Your task to perform on an android device: Open Google Chrome and open the bookmarks view Image 0: 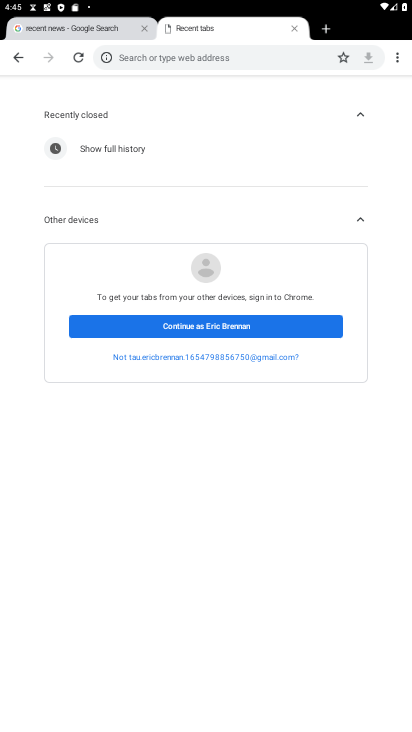
Step 0: press home button
Your task to perform on an android device: Open Google Chrome and open the bookmarks view Image 1: 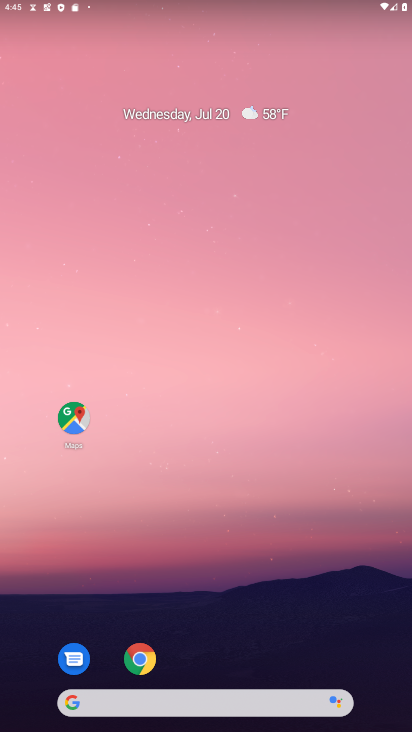
Step 1: drag from (178, 711) to (310, 30)
Your task to perform on an android device: Open Google Chrome and open the bookmarks view Image 2: 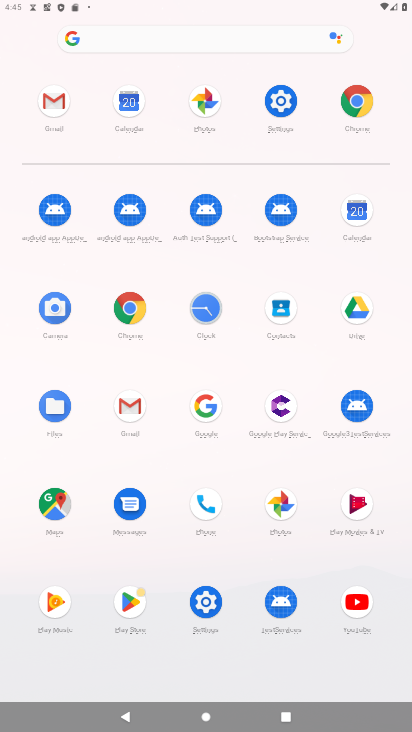
Step 2: click (115, 305)
Your task to perform on an android device: Open Google Chrome and open the bookmarks view Image 3: 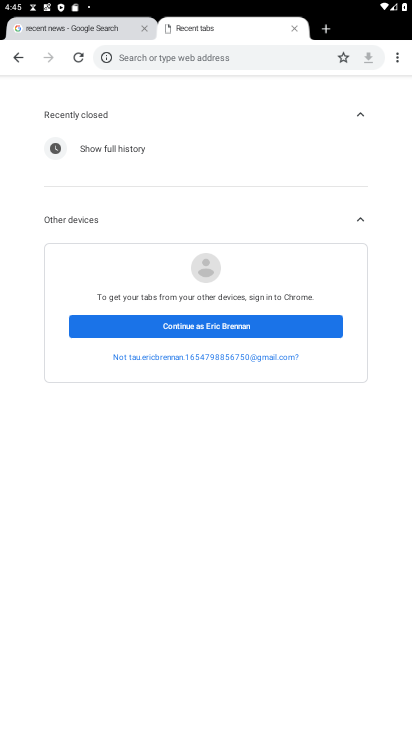
Step 3: task complete